Your task to perform on an android device: move a message to another label in the gmail app Image 0: 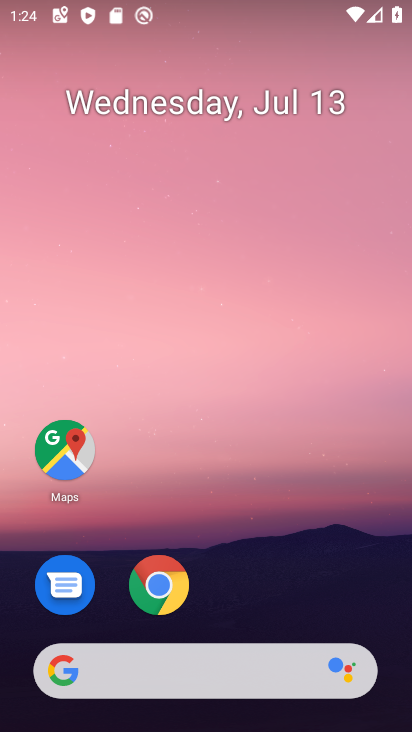
Step 0: drag from (187, 657) to (243, 153)
Your task to perform on an android device: move a message to another label in the gmail app Image 1: 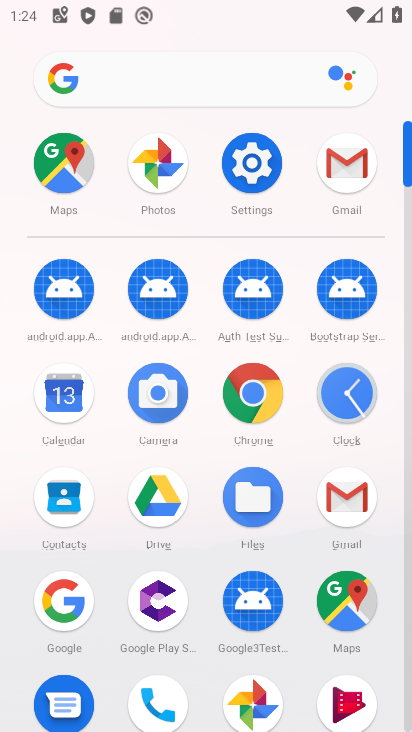
Step 1: click (357, 165)
Your task to perform on an android device: move a message to another label in the gmail app Image 2: 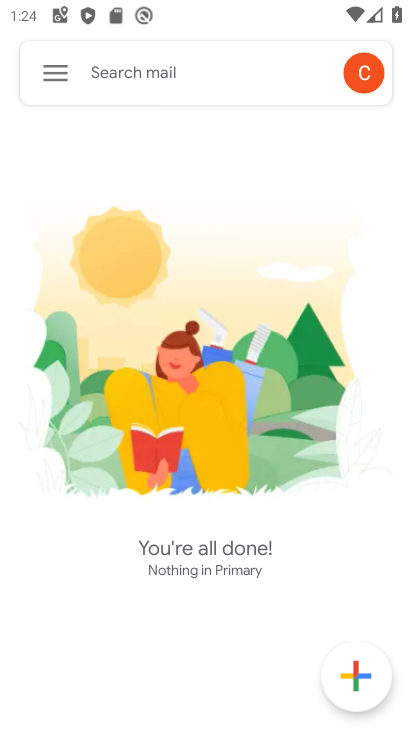
Step 2: task complete